Your task to perform on an android device: Search for a cheap bike on Walmart Image 0: 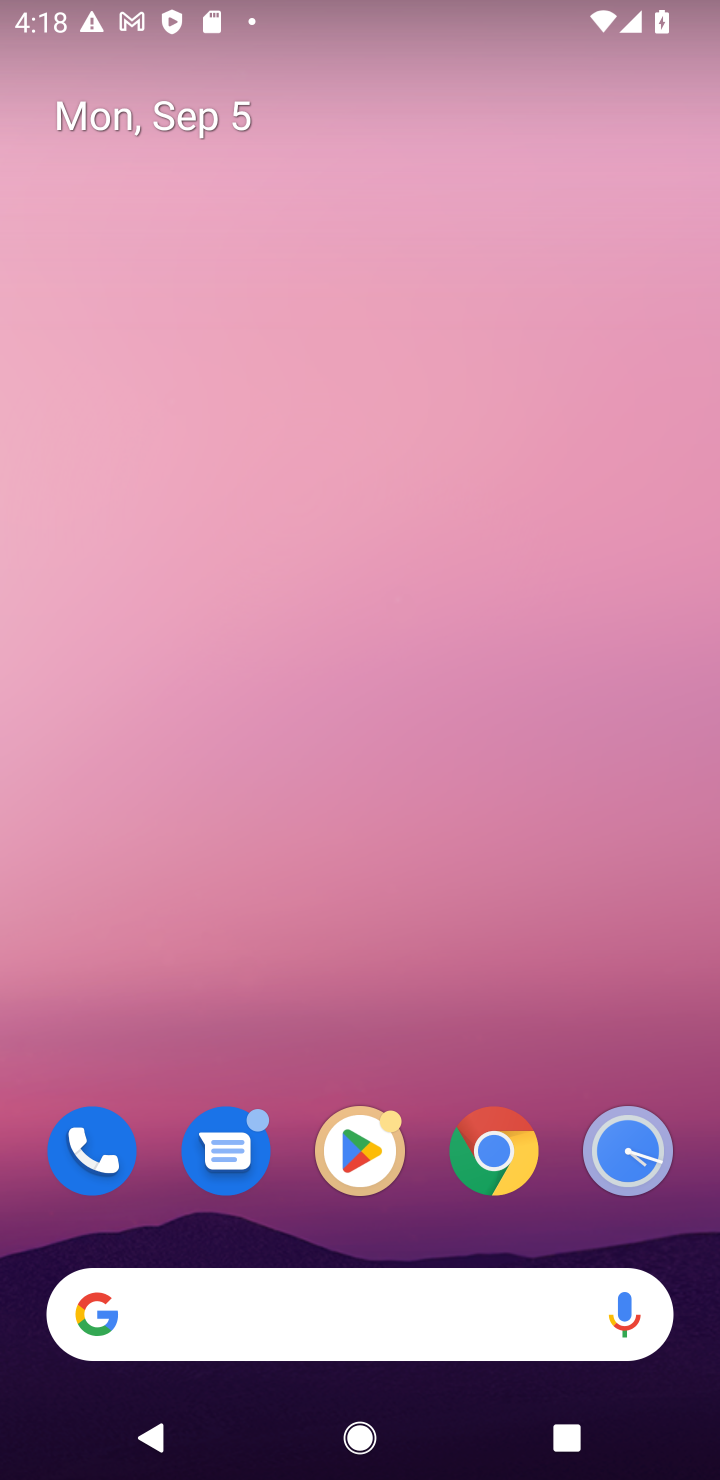
Step 0: click (483, 410)
Your task to perform on an android device: Search for a cheap bike on Walmart Image 1: 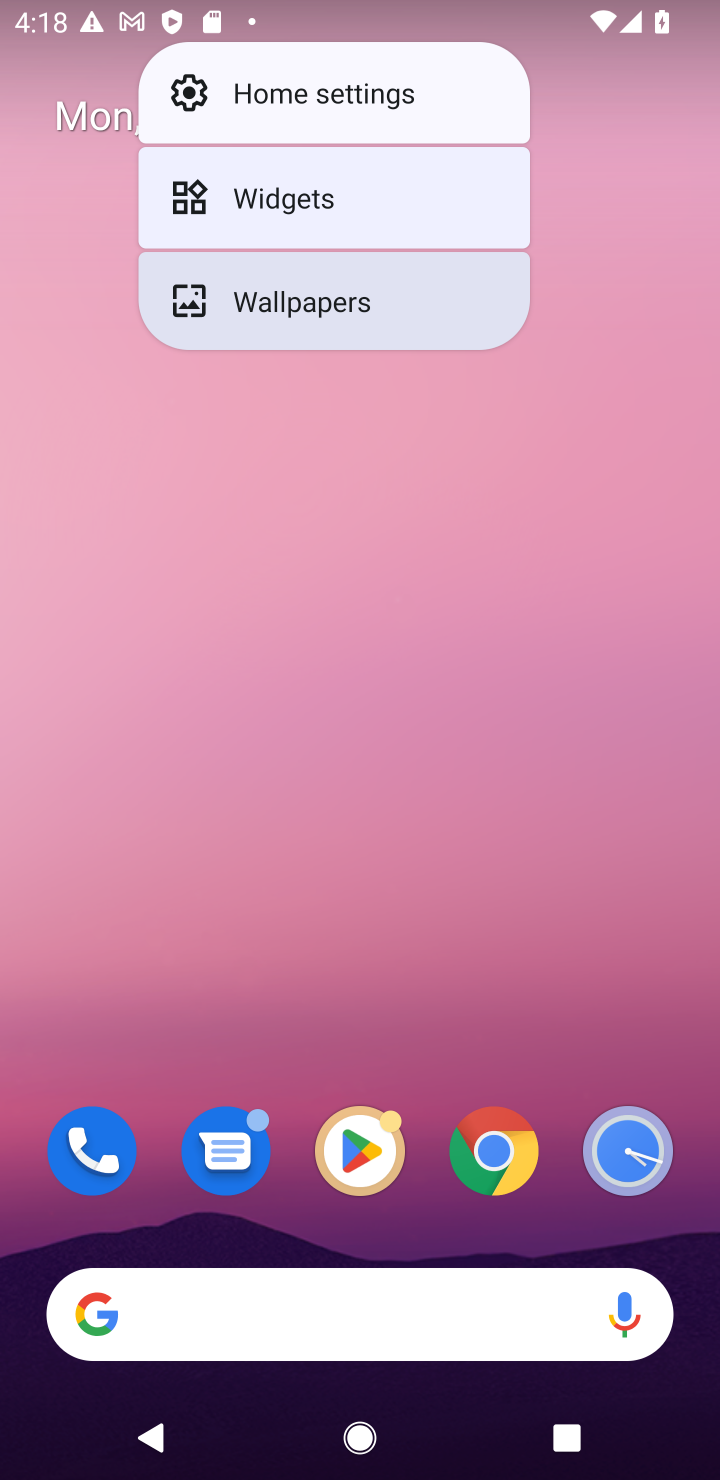
Step 1: click (484, 742)
Your task to perform on an android device: Search for a cheap bike on Walmart Image 2: 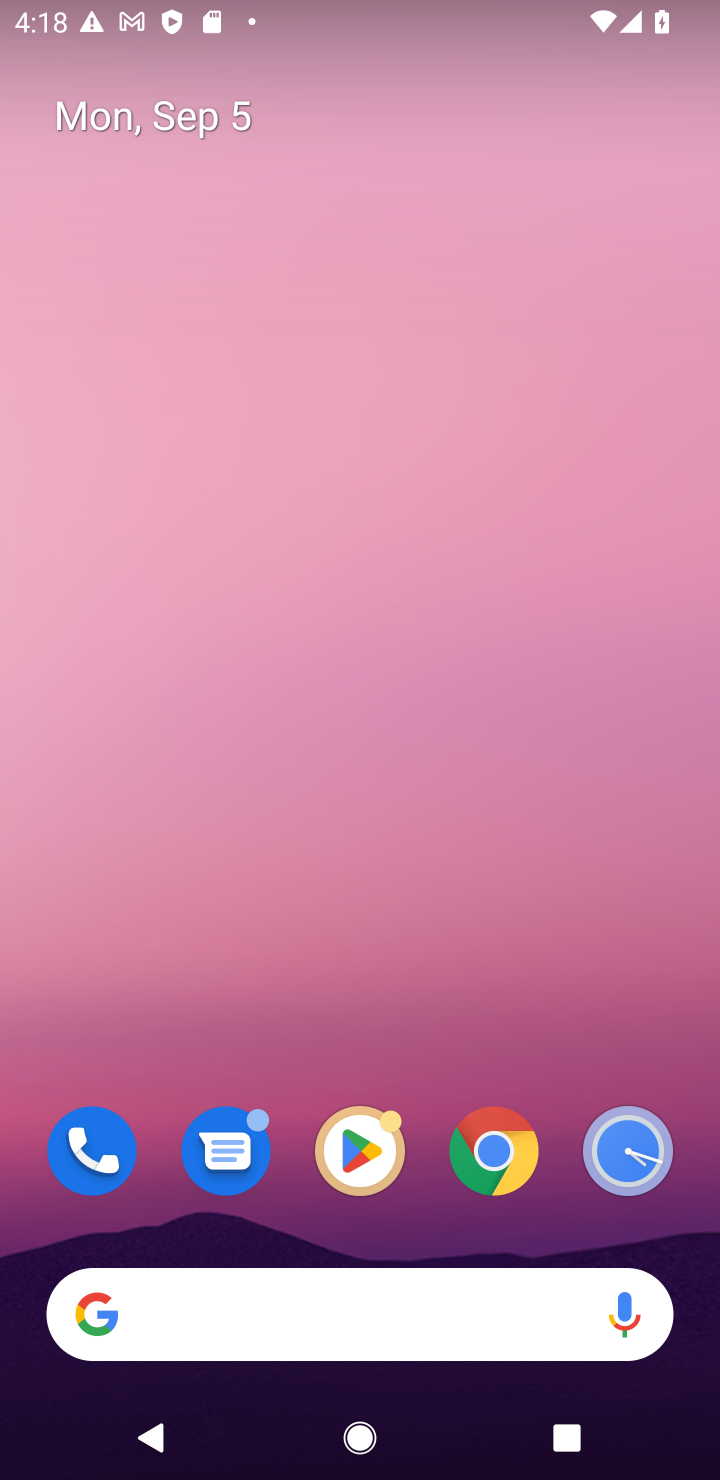
Step 2: drag from (445, 1078) to (517, 192)
Your task to perform on an android device: Search for a cheap bike on Walmart Image 3: 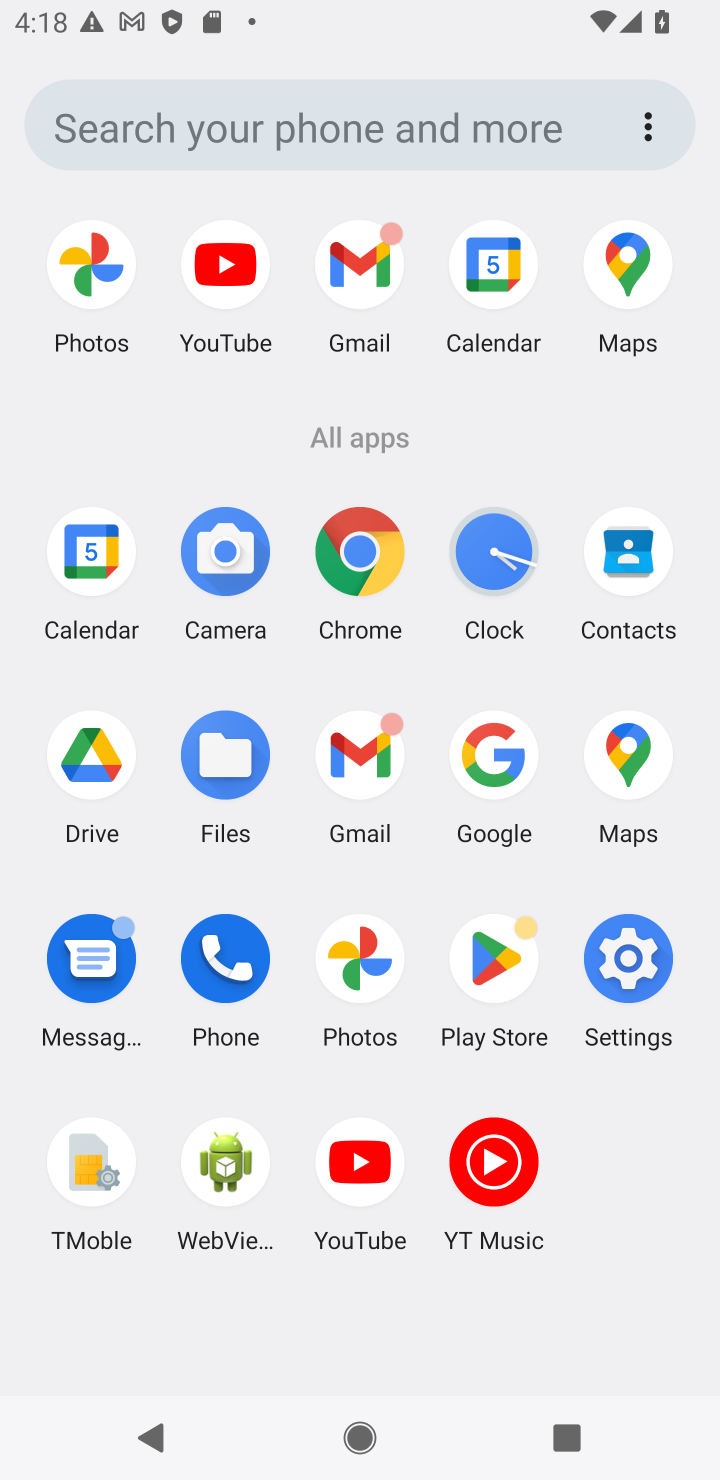
Step 3: click (379, 604)
Your task to perform on an android device: Search for a cheap bike on Walmart Image 4: 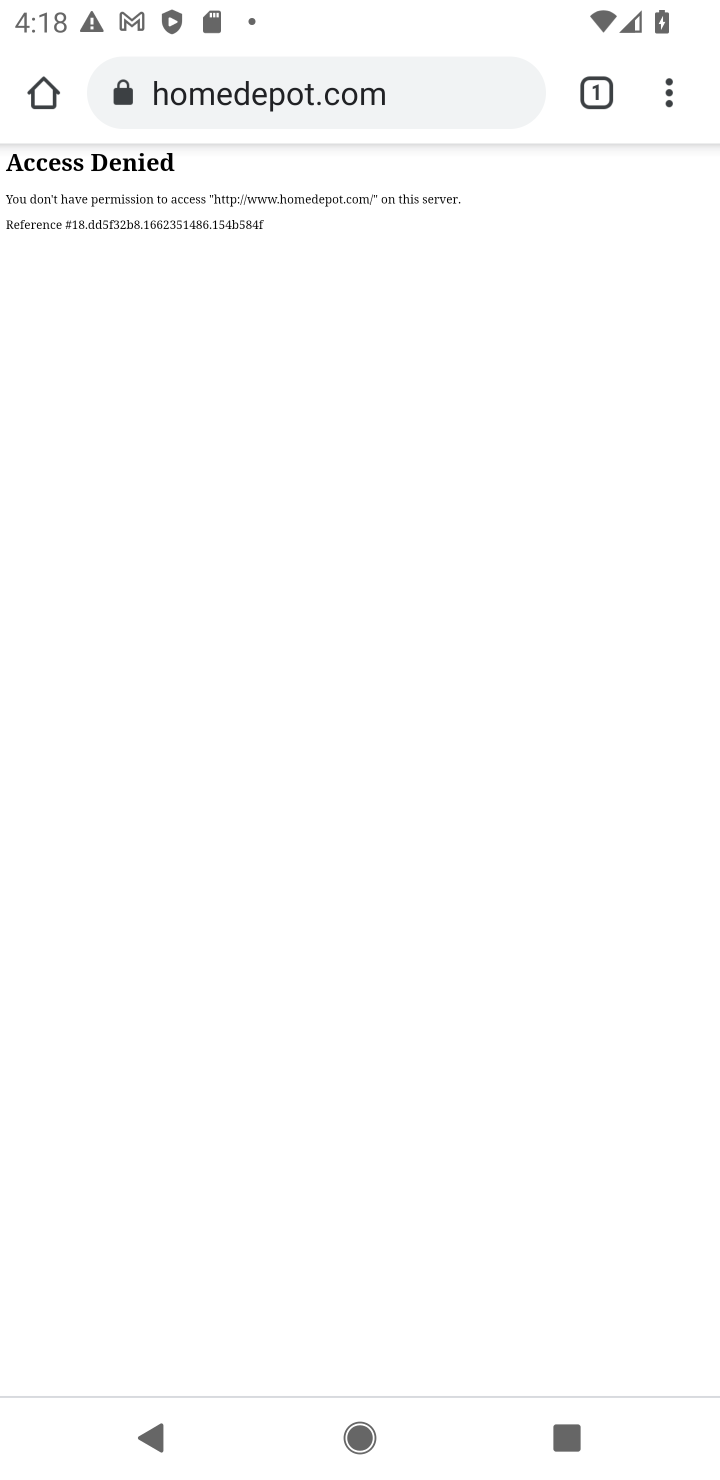
Step 4: click (366, 89)
Your task to perform on an android device: Search for a cheap bike on Walmart Image 5: 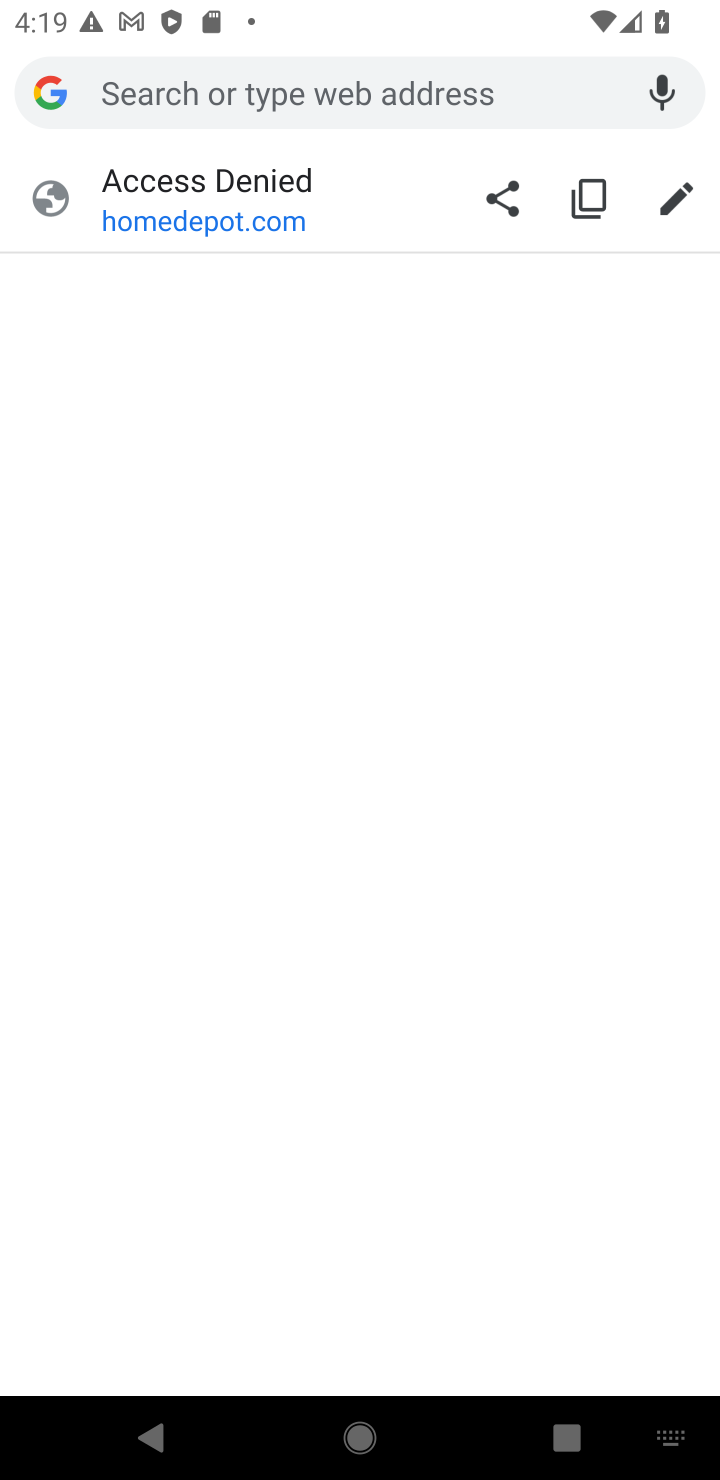
Step 5: type "walmart"
Your task to perform on an android device: Search for a cheap bike on Walmart Image 6: 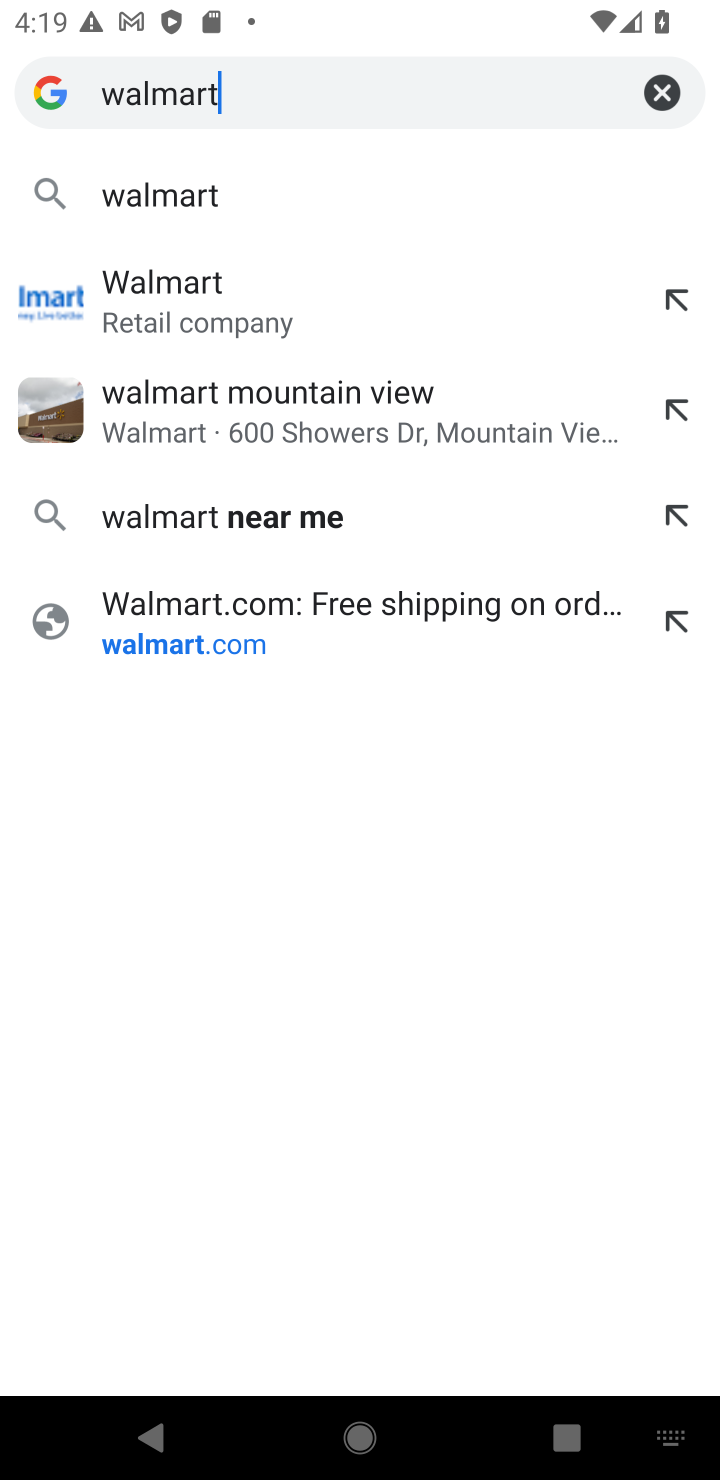
Step 6: click (207, 167)
Your task to perform on an android device: Search for a cheap bike on Walmart Image 7: 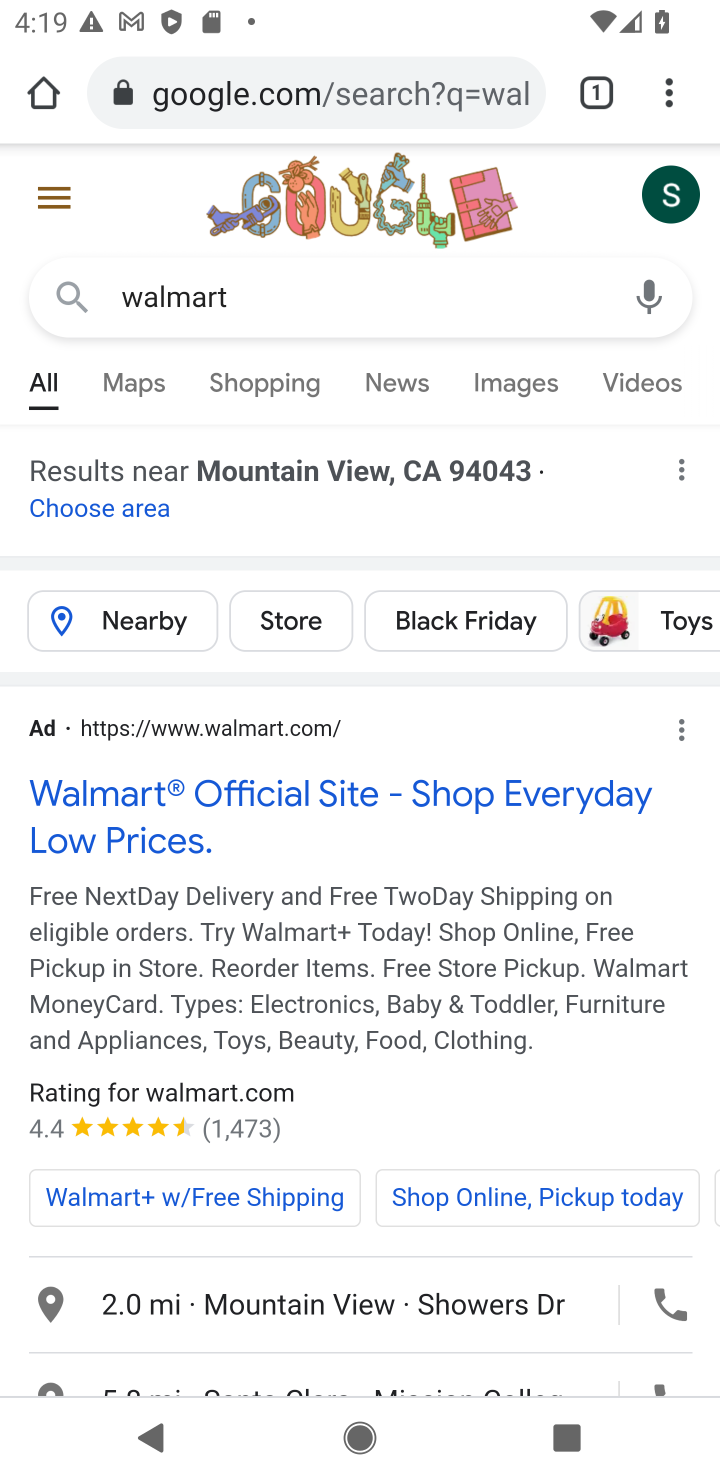
Step 7: drag from (344, 1119) to (398, 239)
Your task to perform on an android device: Search for a cheap bike on Walmart Image 8: 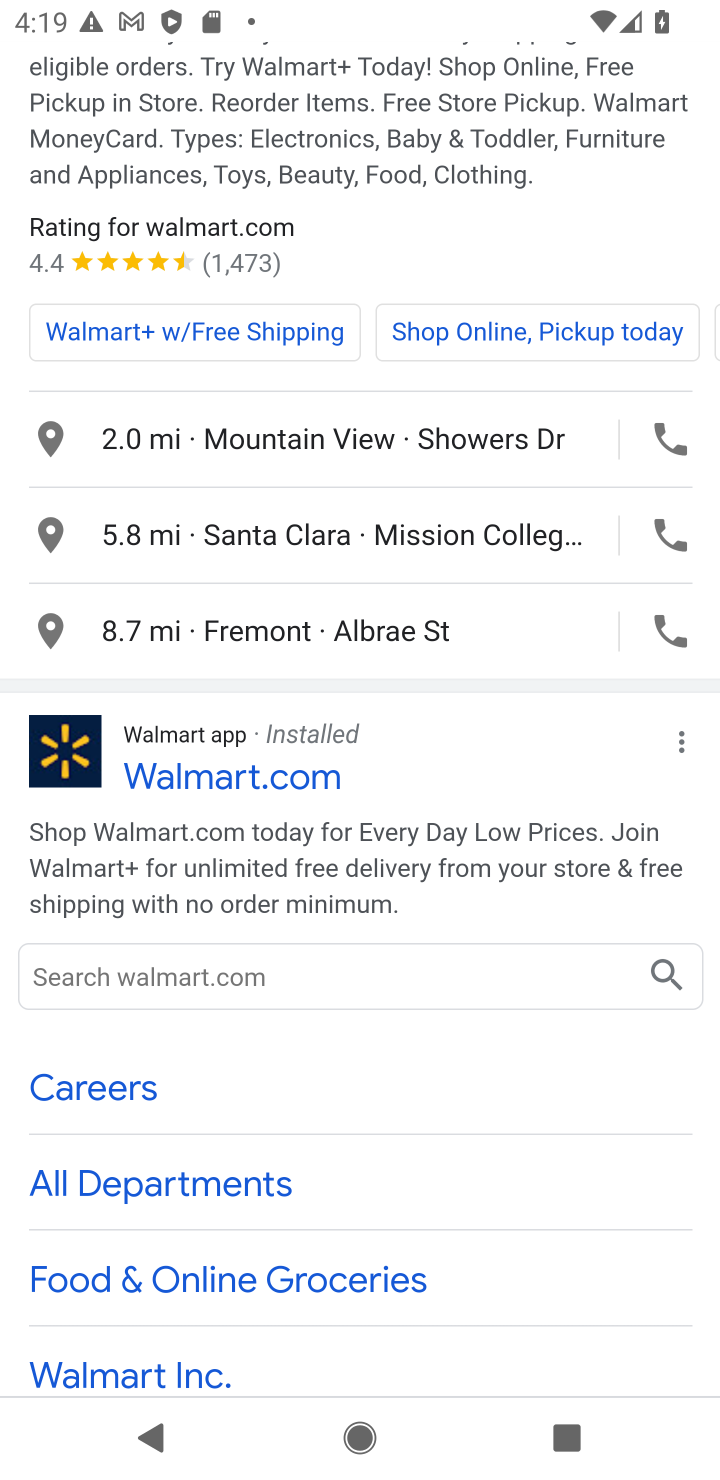
Step 8: click (194, 781)
Your task to perform on an android device: Search for a cheap bike on Walmart Image 9: 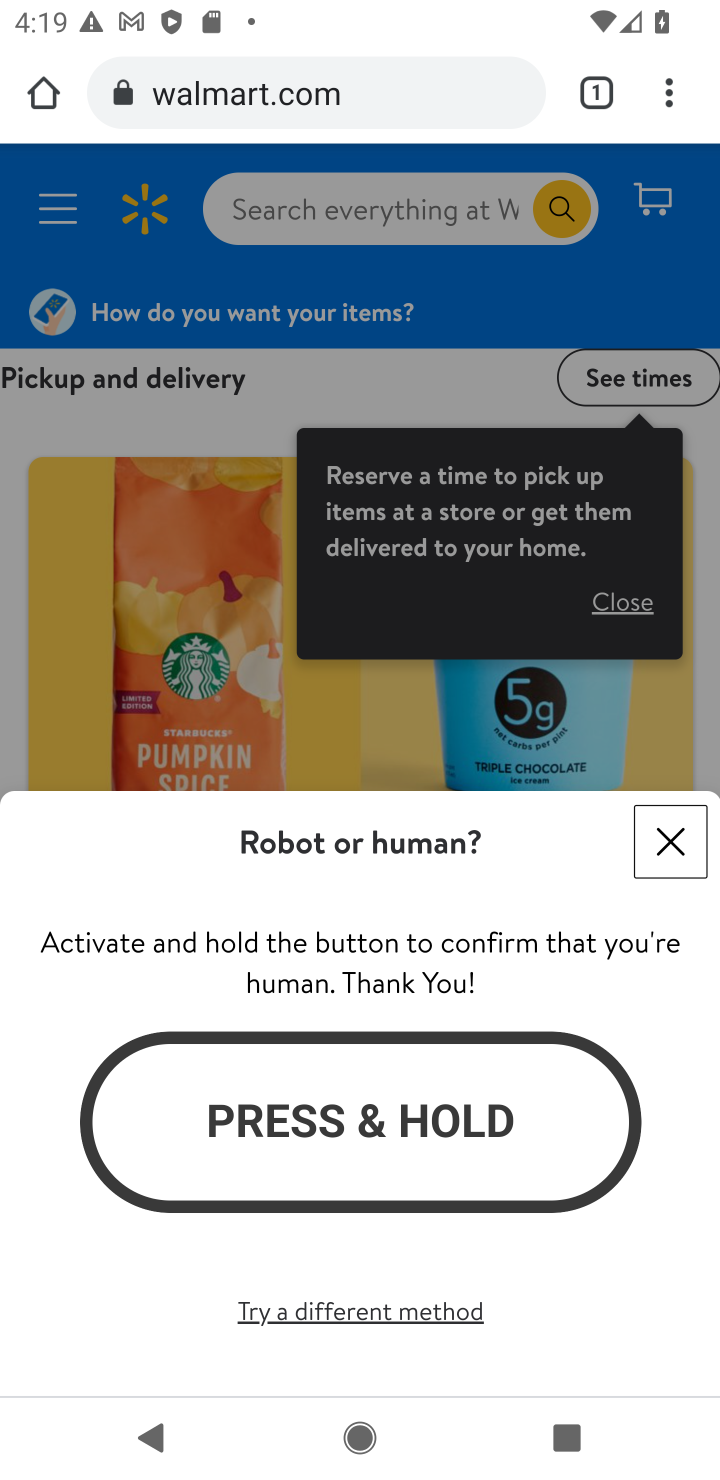
Step 9: click (668, 865)
Your task to perform on an android device: Search for a cheap bike on Walmart Image 10: 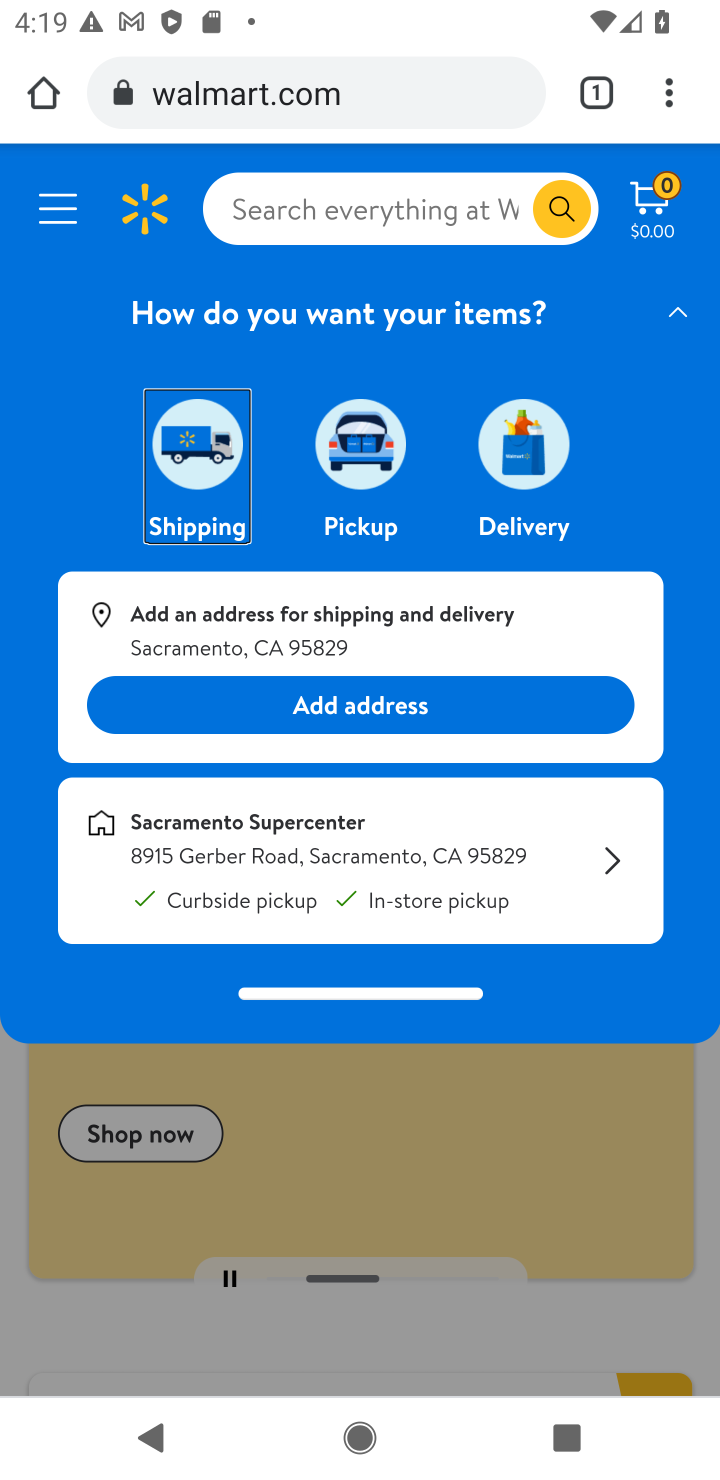
Step 10: click (446, 221)
Your task to perform on an android device: Search for a cheap bike on Walmart Image 11: 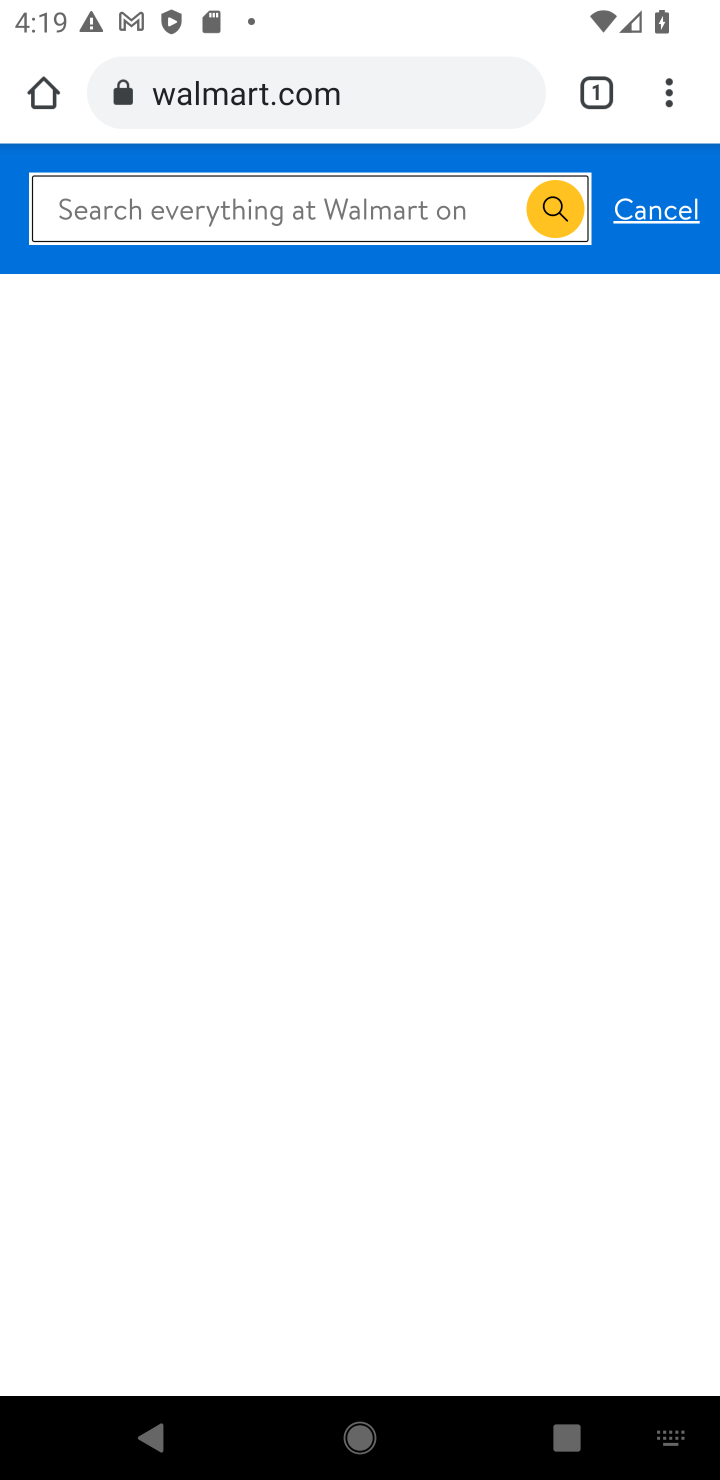
Step 11: type "cheap bike"
Your task to perform on an android device: Search for a cheap bike on Walmart Image 12: 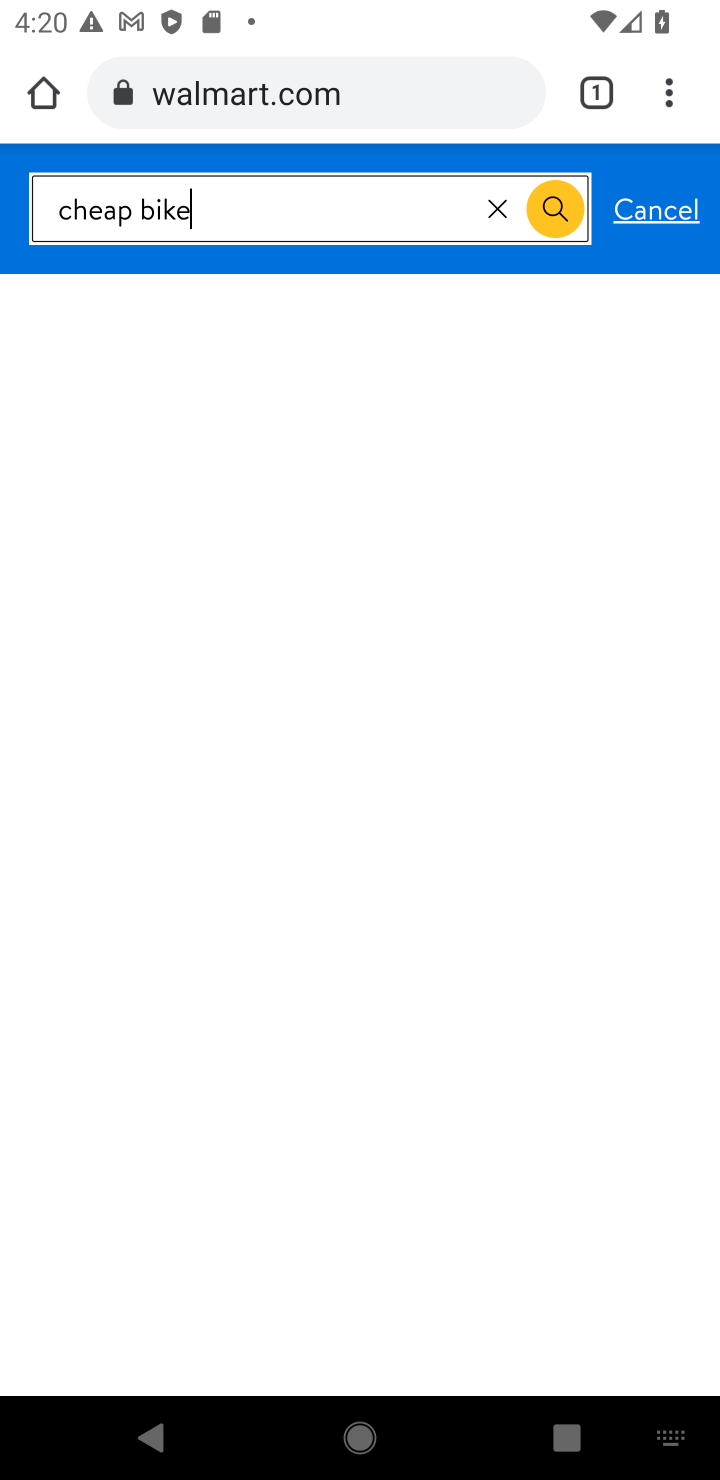
Step 12: click (562, 220)
Your task to perform on an android device: Search for a cheap bike on Walmart Image 13: 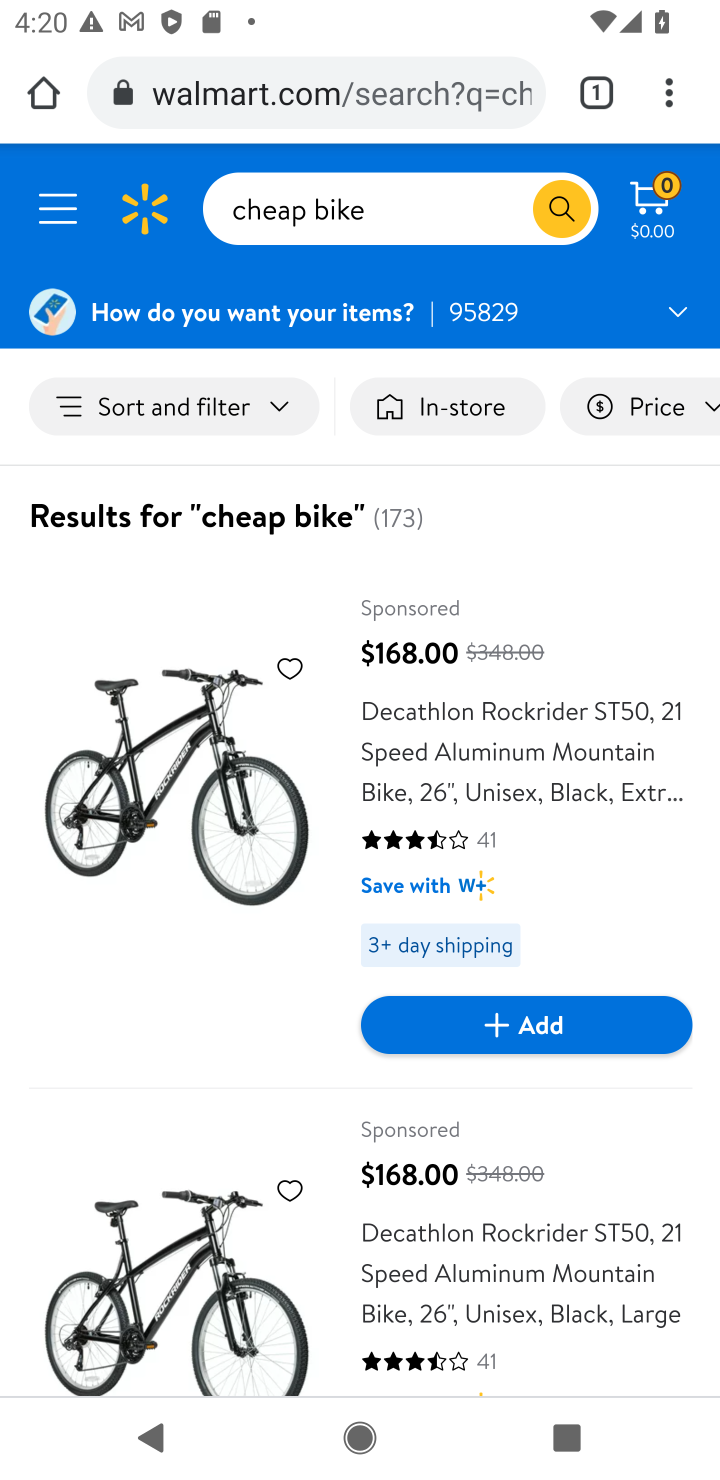
Step 13: task complete